Your task to perform on an android device: find which apps use the phone's location Image 0: 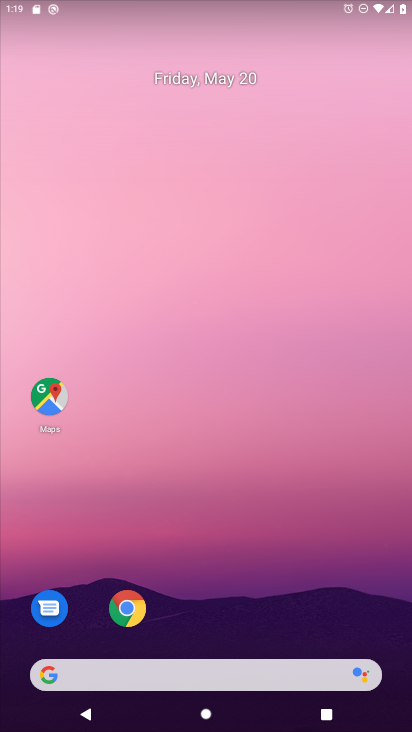
Step 0: press home button
Your task to perform on an android device: find which apps use the phone's location Image 1: 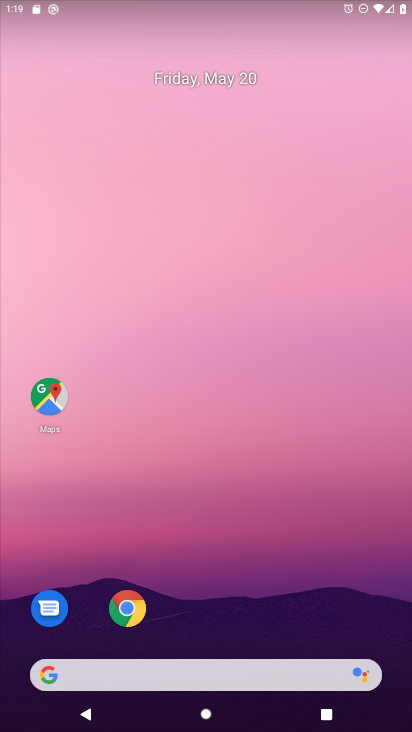
Step 1: drag from (210, 610) to (350, 51)
Your task to perform on an android device: find which apps use the phone's location Image 2: 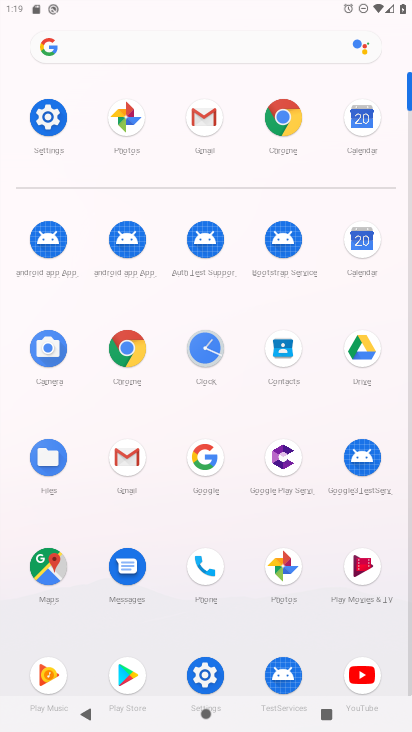
Step 2: click (204, 554)
Your task to perform on an android device: find which apps use the phone's location Image 3: 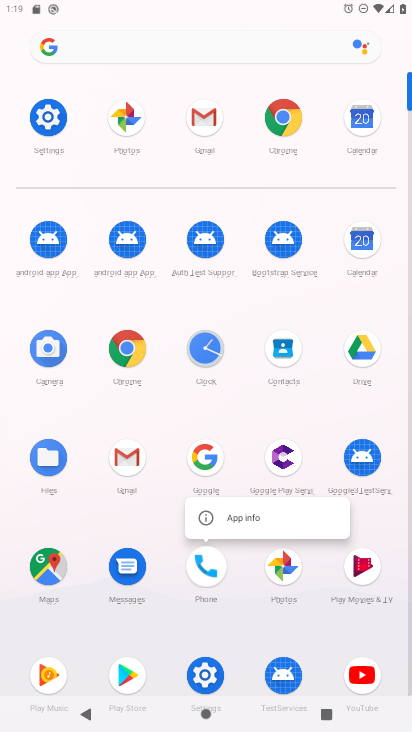
Step 3: click (206, 530)
Your task to perform on an android device: find which apps use the phone's location Image 4: 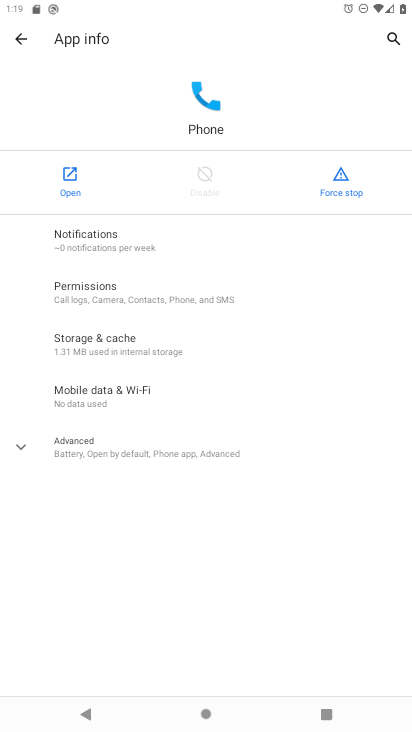
Step 4: click (122, 307)
Your task to perform on an android device: find which apps use the phone's location Image 5: 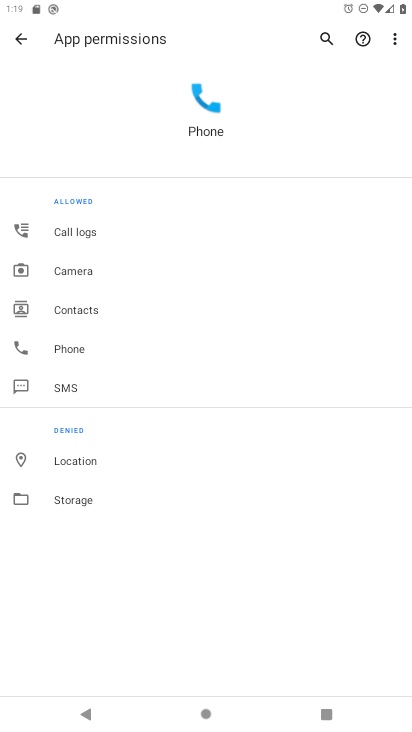
Step 5: click (103, 460)
Your task to perform on an android device: find which apps use the phone's location Image 6: 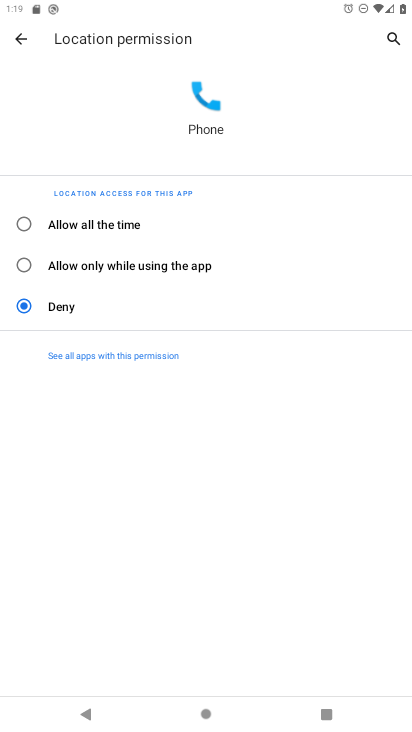
Step 6: click (85, 354)
Your task to perform on an android device: find which apps use the phone's location Image 7: 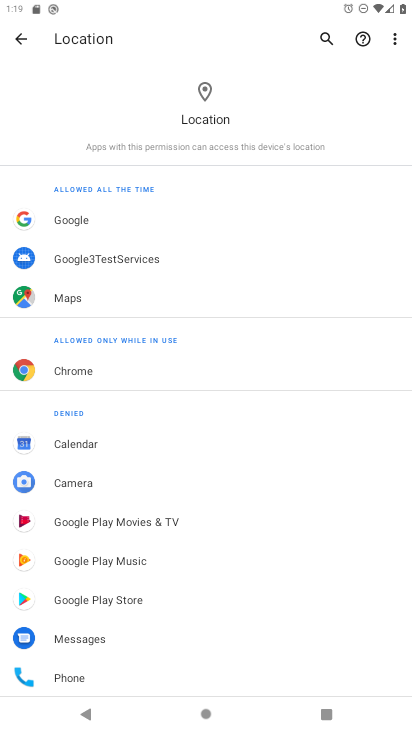
Step 7: task complete